Your task to perform on an android device: Do I have any events this weekend? Image 0: 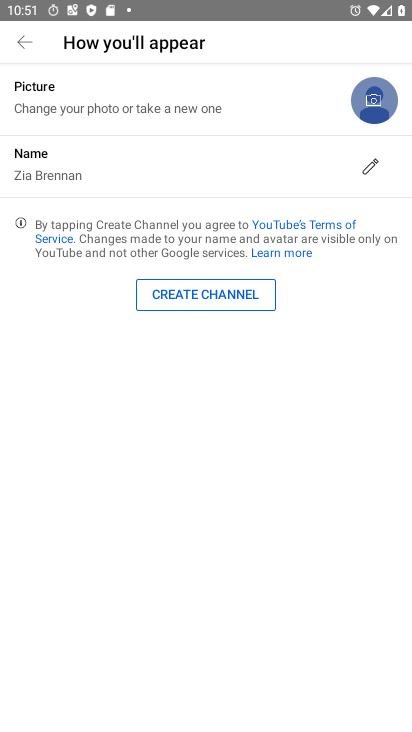
Step 0: press home button
Your task to perform on an android device: Do I have any events this weekend? Image 1: 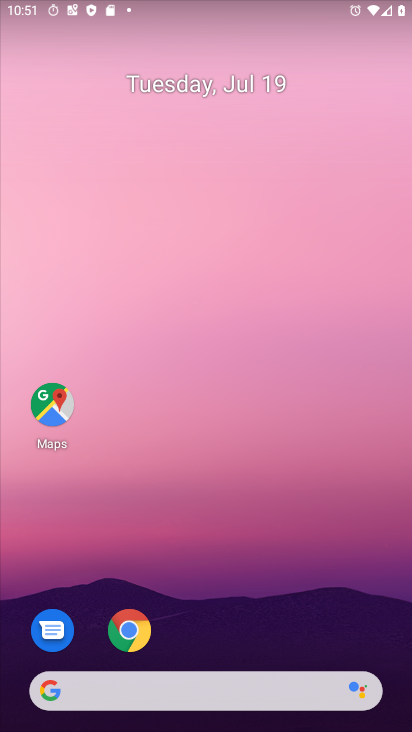
Step 1: drag from (231, 627) to (188, 7)
Your task to perform on an android device: Do I have any events this weekend? Image 2: 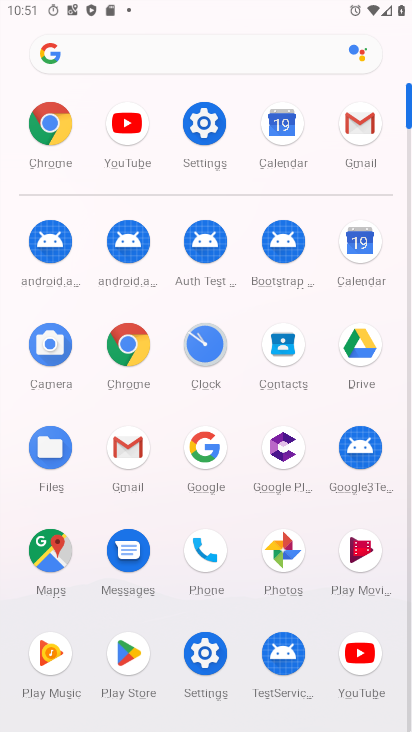
Step 2: click (355, 255)
Your task to perform on an android device: Do I have any events this weekend? Image 3: 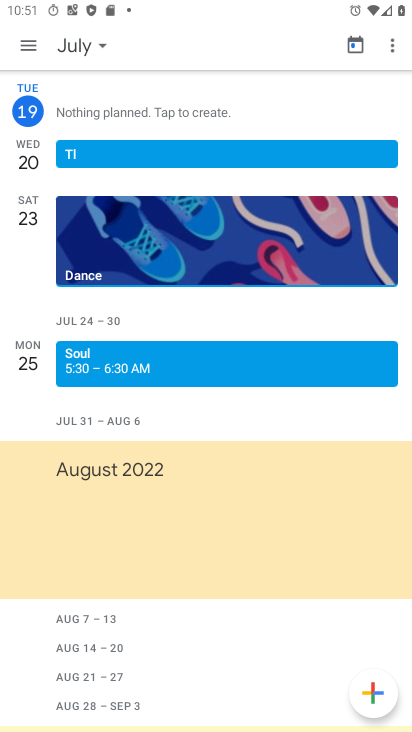
Step 3: click (25, 42)
Your task to perform on an android device: Do I have any events this weekend? Image 4: 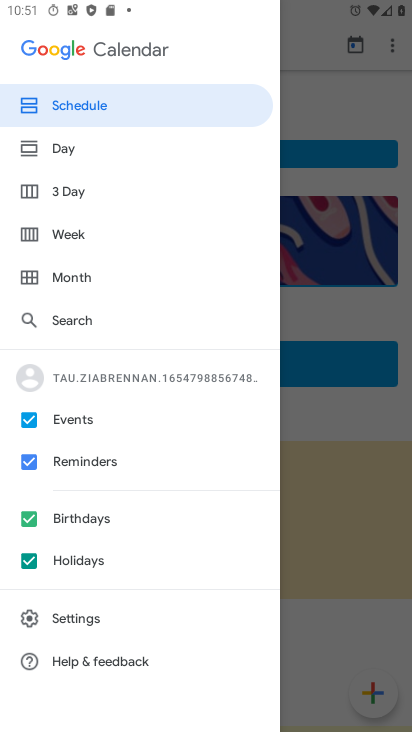
Step 4: click (77, 236)
Your task to perform on an android device: Do I have any events this weekend? Image 5: 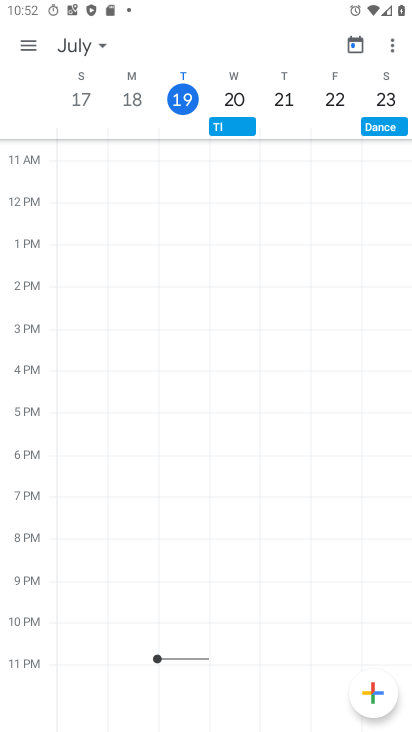
Step 5: task complete